Your task to perform on an android device: toggle wifi Image 0: 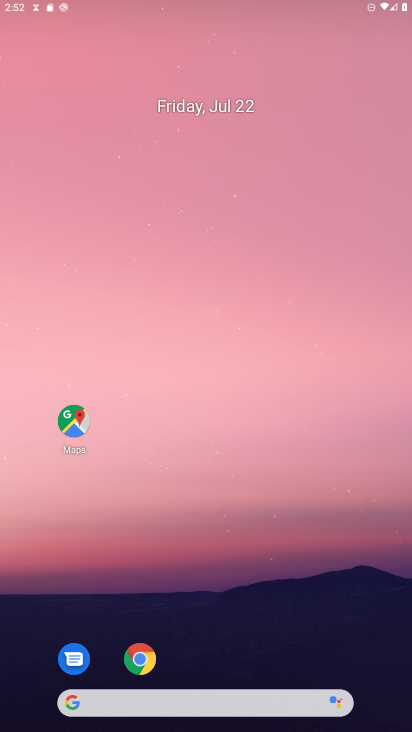
Step 0: drag from (231, 645) to (276, 62)
Your task to perform on an android device: toggle wifi Image 1: 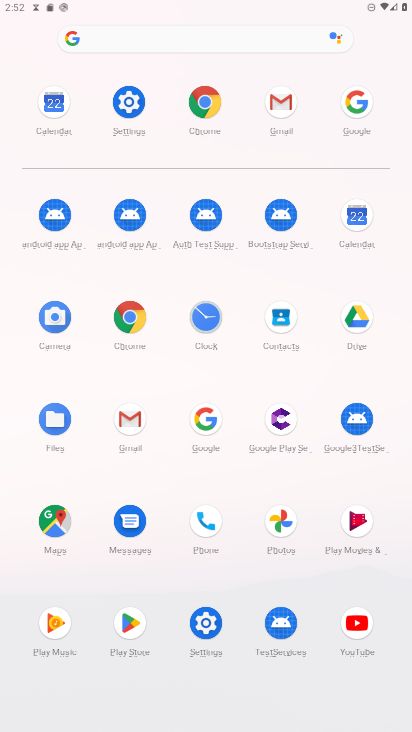
Step 1: click (134, 111)
Your task to perform on an android device: toggle wifi Image 2: 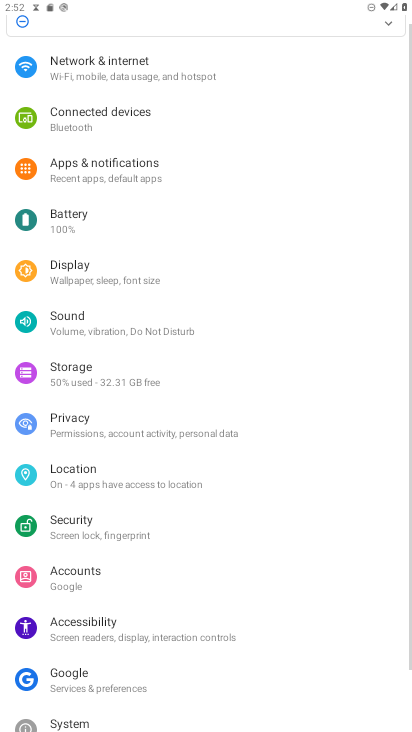
Step 2: drag from (166, 78) to (162, 493)
Your task to perform on an android device: toggle wifi Image 3: 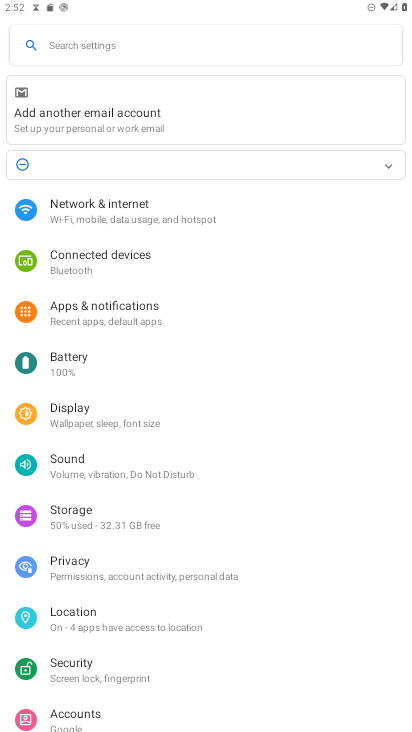
Step 3: click (102, 203)
Your task to perform on an android device: toggle wifi Image 4: 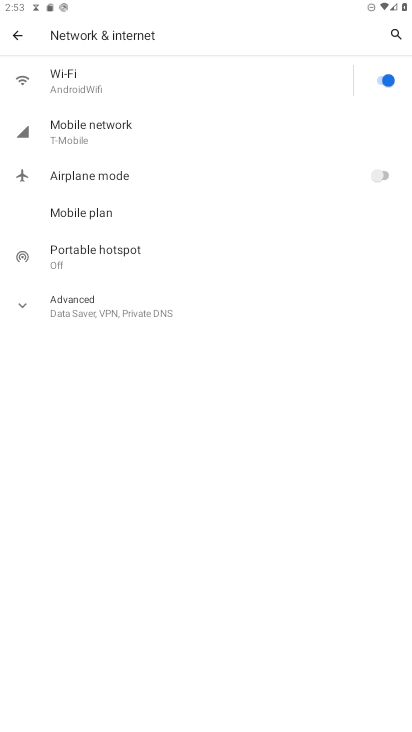
Step 4: click (389, 76)
Your task to perform on an android device: toggle wifi Image 5: 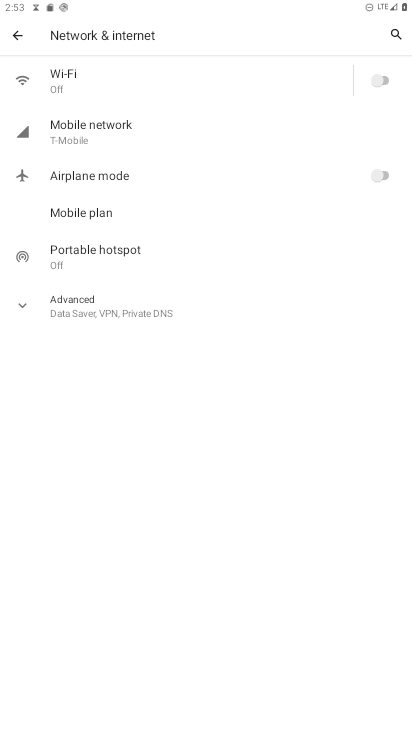
Step 5: task complete